Your task to perform on an android device: check the backup settings in the google photos Image 0: 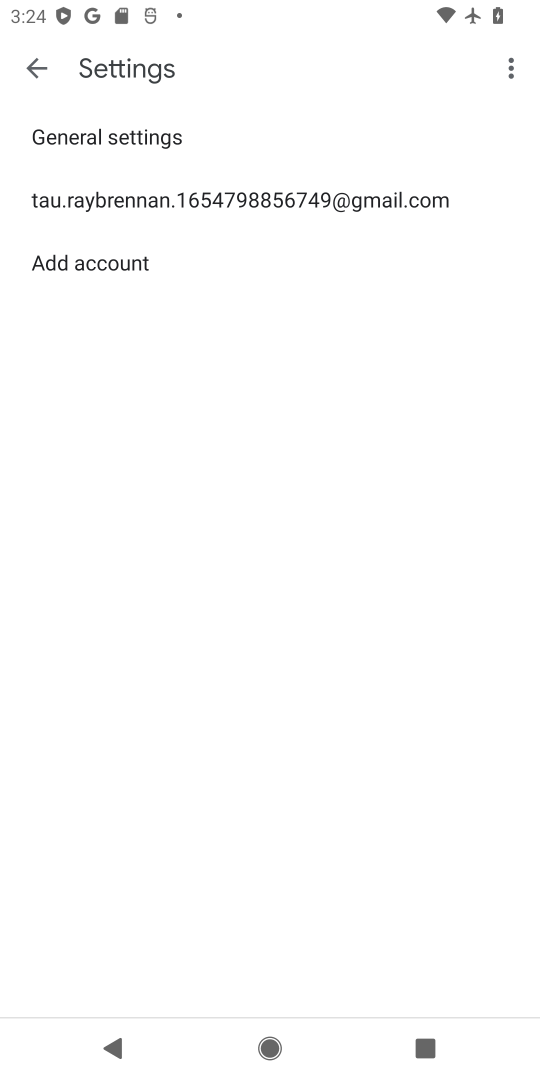
Step 0: press home button
Your task to perform on an android device: check the backup settings in the google photos Image 1: 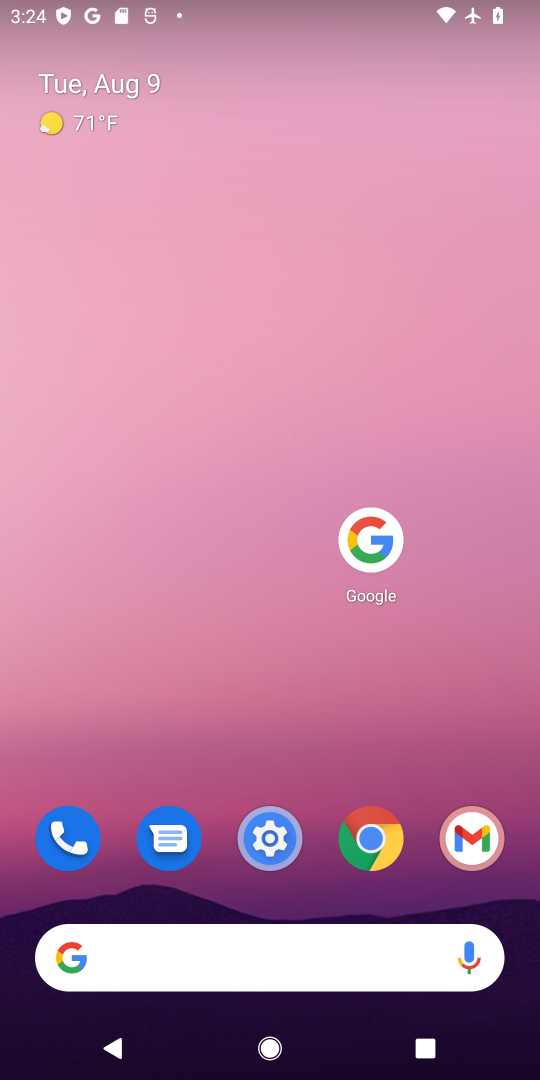
Step 1: drag from (239, 581) to (294, 36)
Your task to perform on an android device: check the backup settings in the google photos Image 2: 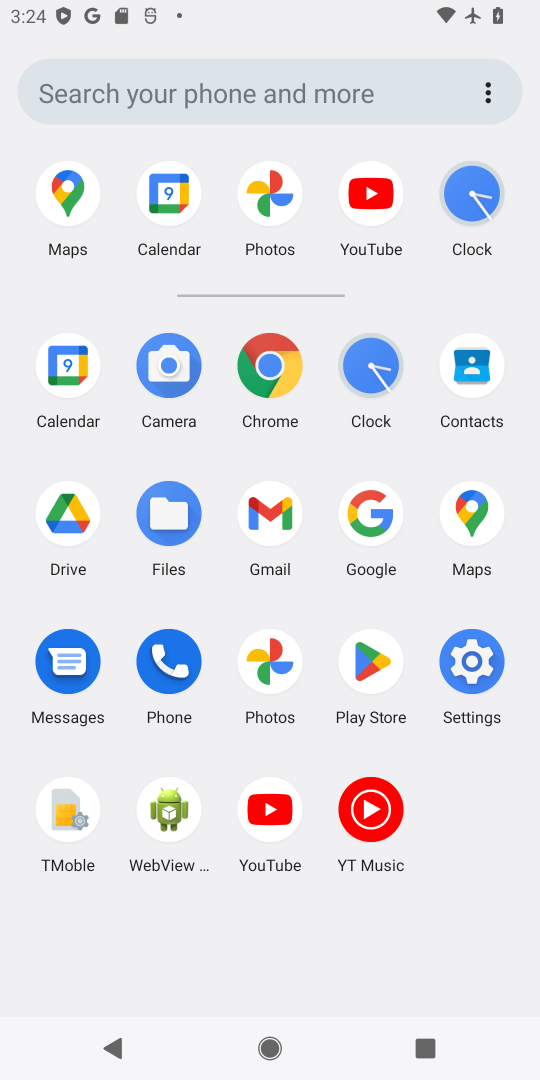
Step 2: click (275, 626)
Your task to perform on an android device: check the backup settings in the google photos Image 3: 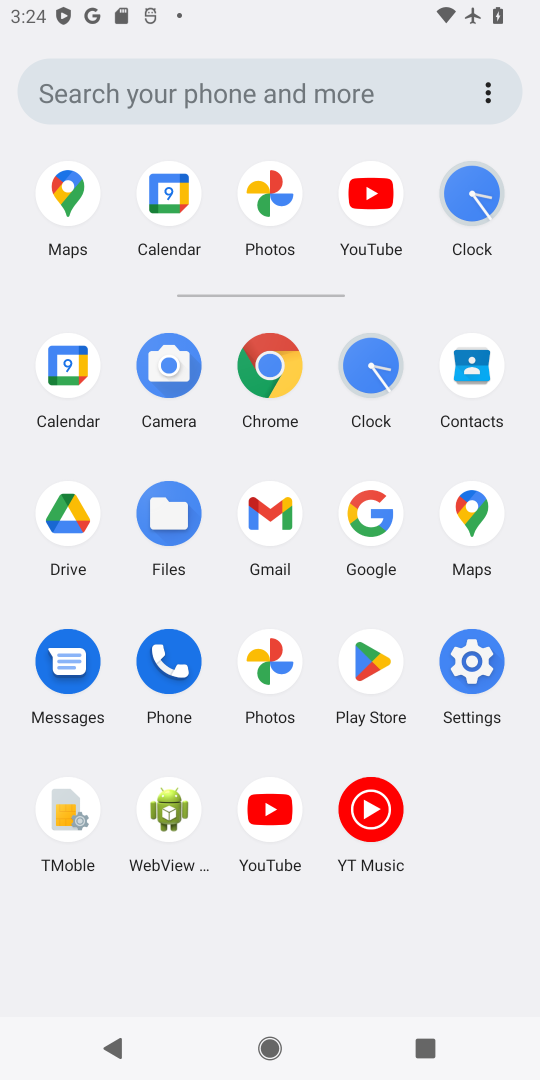
Step 3: click (262, 649)
Your task to perform on an android device: check the backup settings in the google photos Image 4: 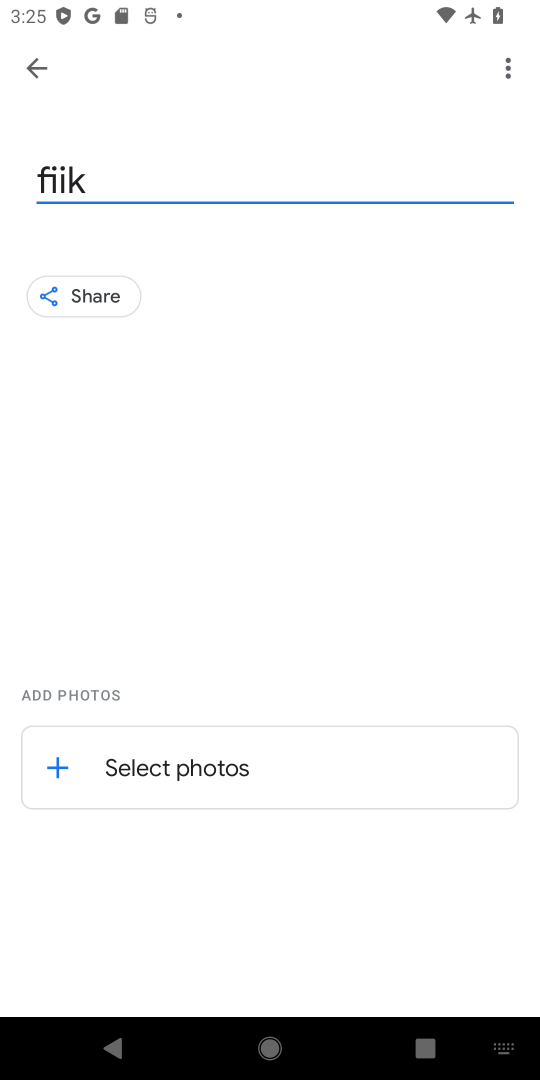
Step 4: press back button
Your task to perform on an android device: check the backup settings in the google photos Image 5: 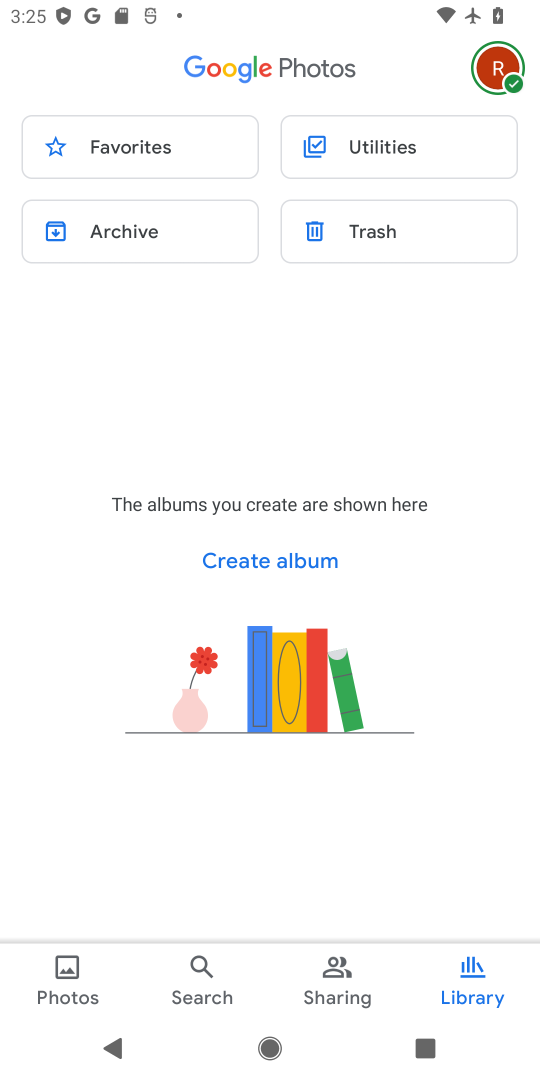
Step 5: click (492, 56)
Your task to perform on an android device: check the backup settings in the google photos Image 6: 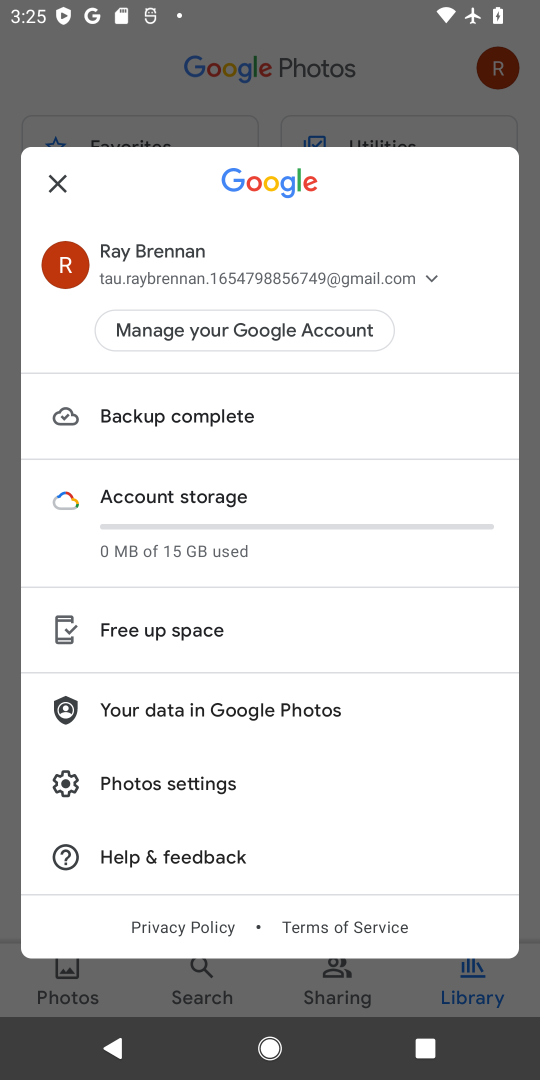
Step 6: click (189, 775)
Your task to perform on an android device: check the backup settings in the google photos Image 7: 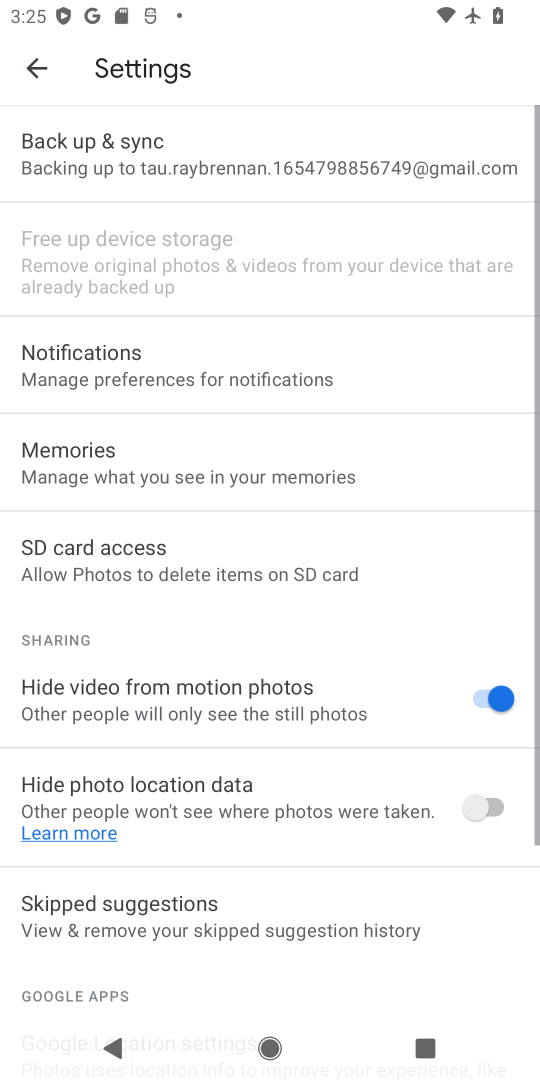
Step 7: click (157, 136)
Your task to perform on an android device: check the backup settings in the google photos Image 8: 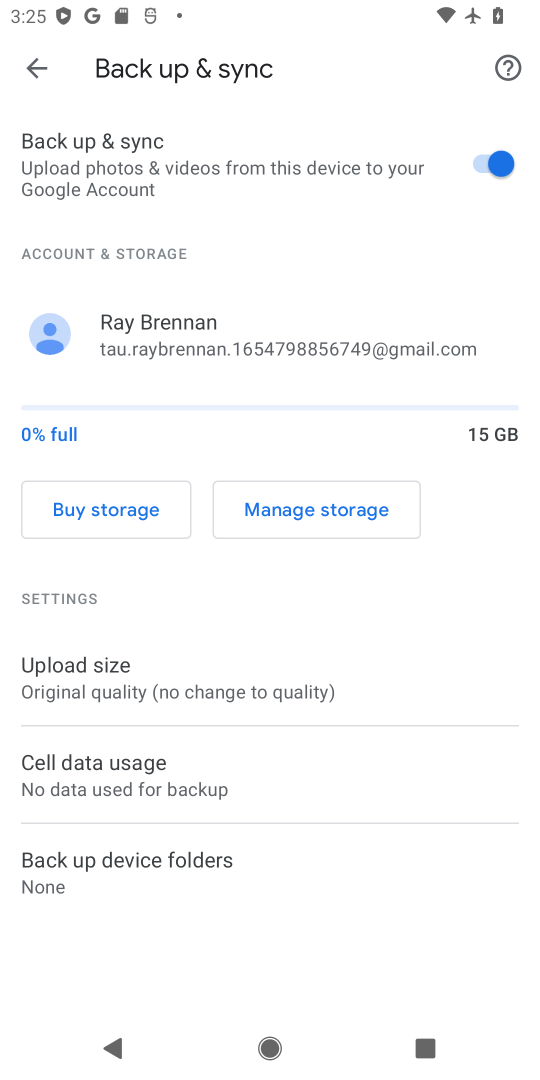
Step 8: task complete